Your task to perform on an android device: Open Android settings Image 0: 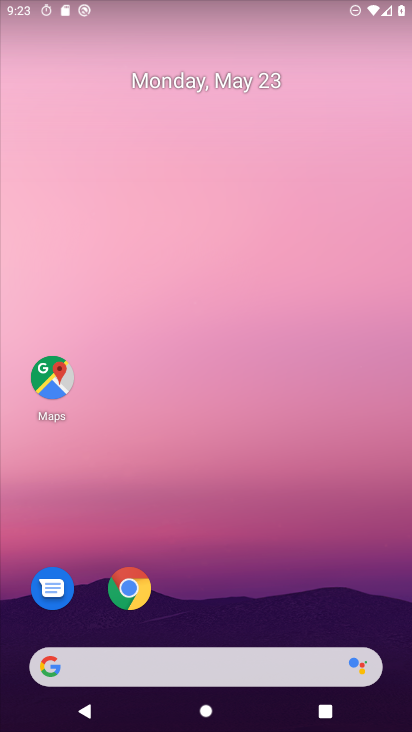
Step 0: drag from (410, 706) to (367, 133)
Your task to perform on an android device: Open Android settings Image 1: 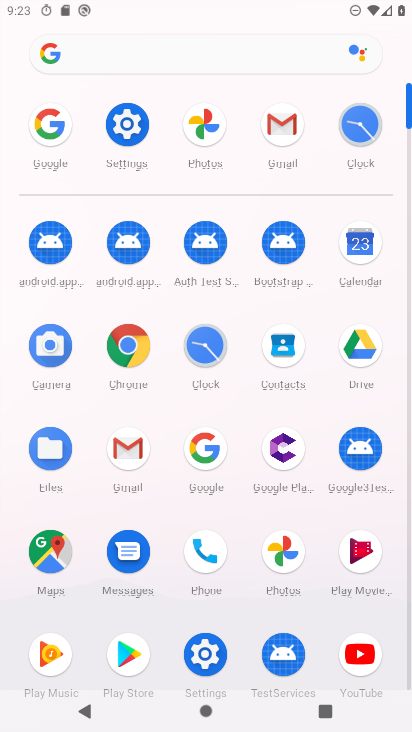
Step 1: click (126, 109)
Your task to perform on an android device: Open Android settings Image 2: 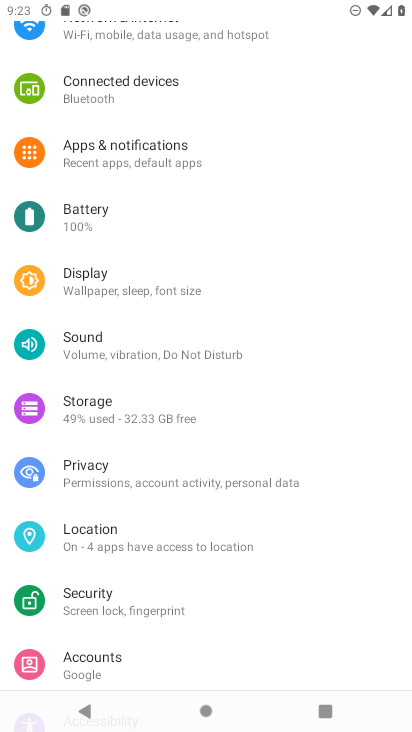
Step 2: task complete